Your task to perform on an android device: delete location history Image 0: 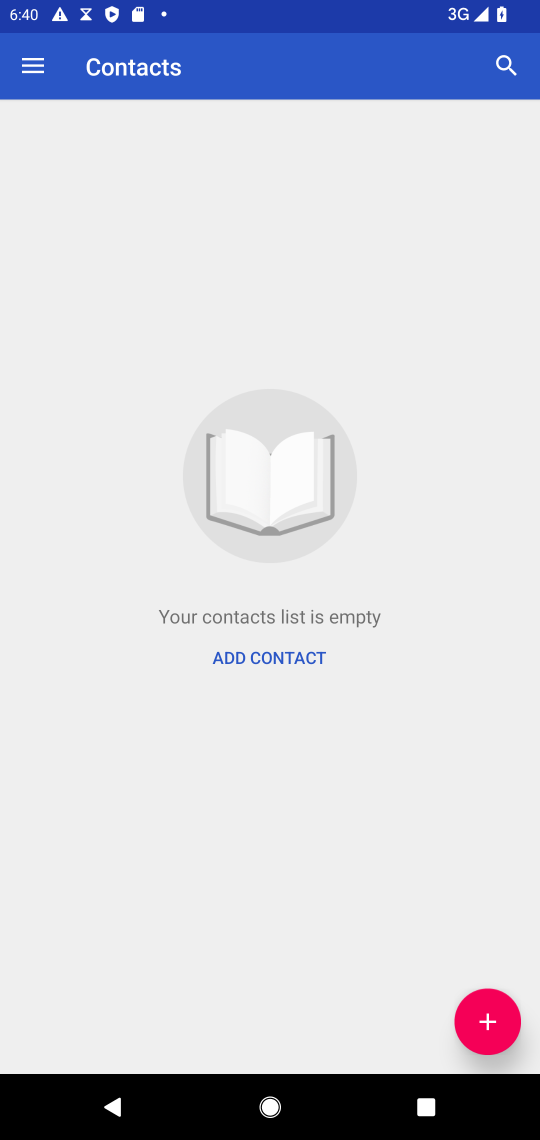
Step 0: press home button
Your task to perform on an android device: delete location history Image 1: 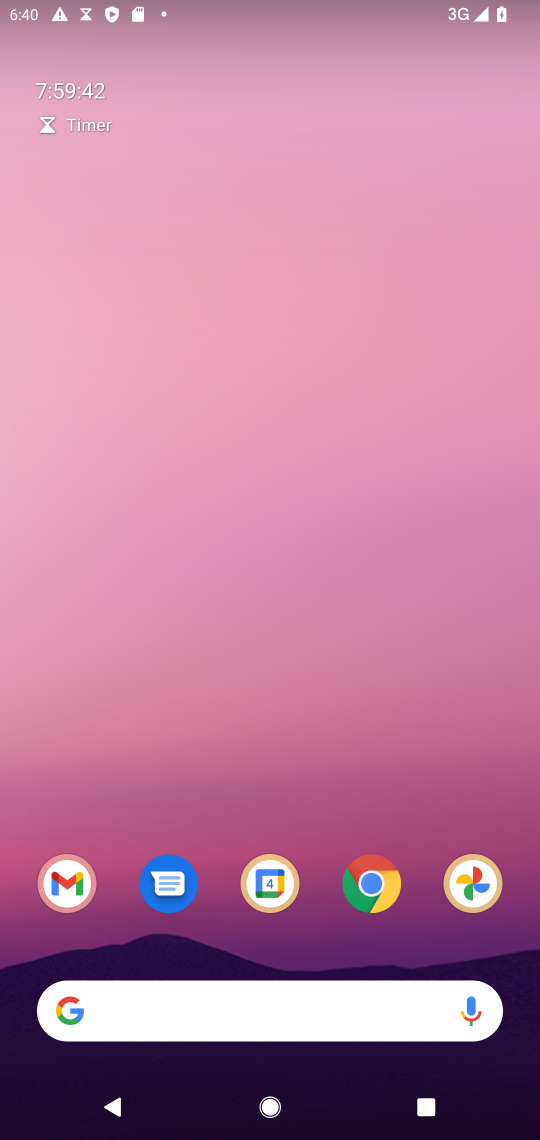
Step 1: drag from (420, 831) to (368, 45)
Your task to perform on an android device: delete location history Image 2: 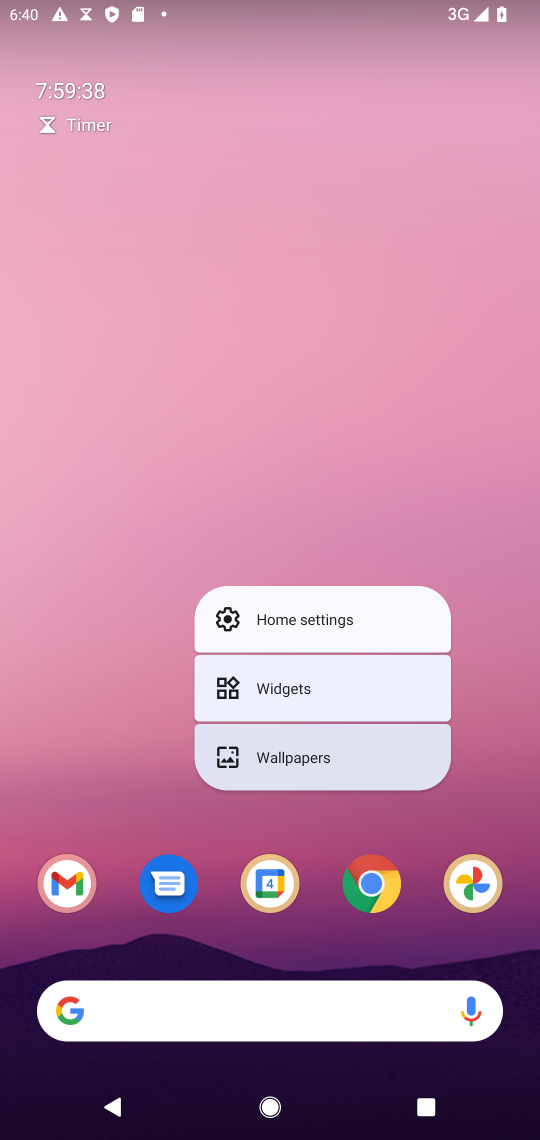
Step 2: drag from (517, 935) to (386, 282)
Your task to perform on an android device: delete location history Image 3: 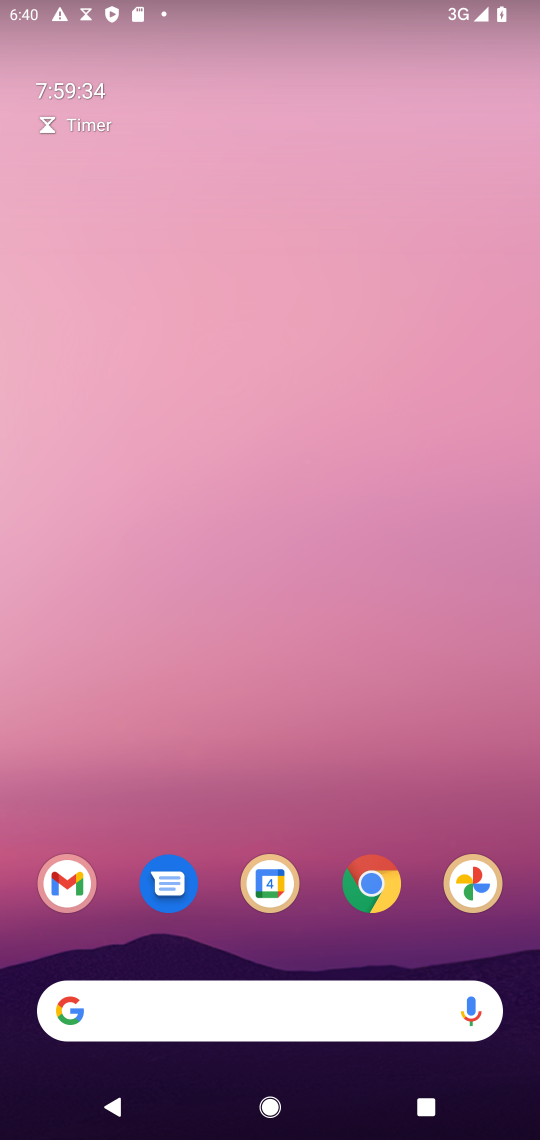
Step 3: drag from (433, 863) to (336, 262)
Your task to perform on an android device: delete location history Image 4: 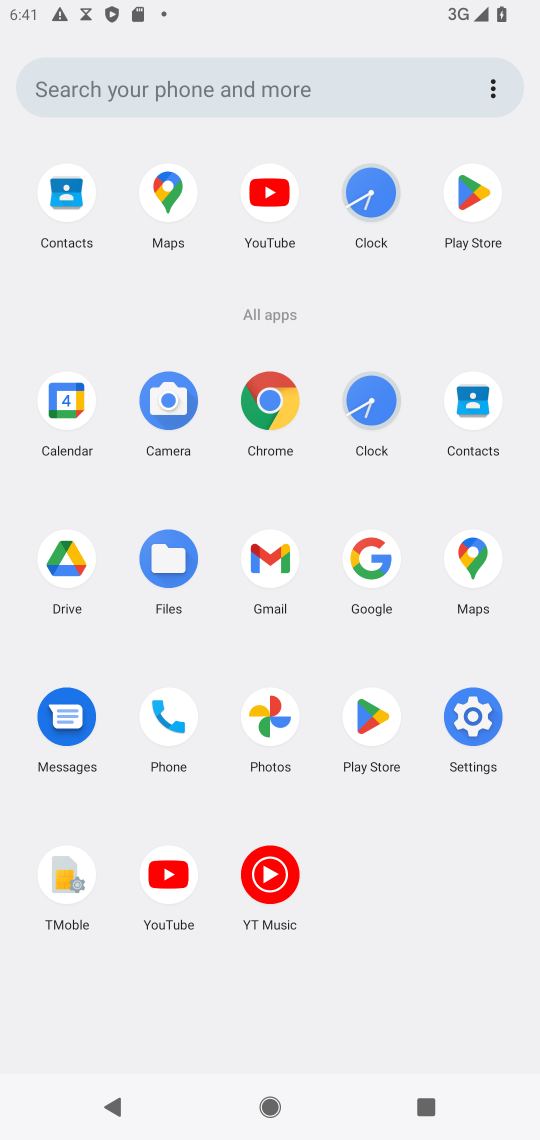
Step 4: click (160, 204)
Your task to perform on an android device: delete location history Image 5: 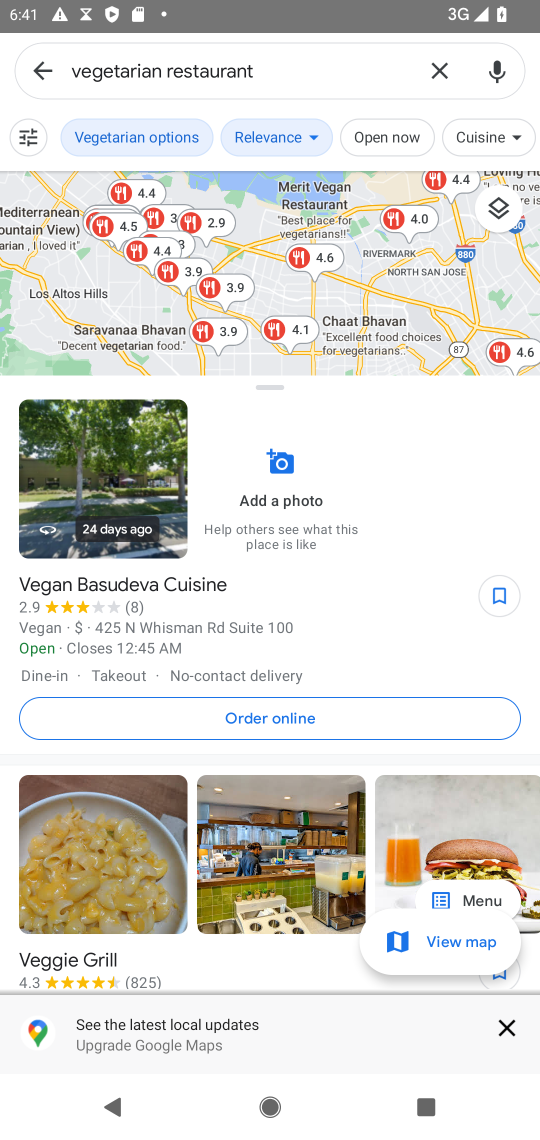
Step 5: click (48, 78)
Your task to perform on an android device: delete location history Image 6: 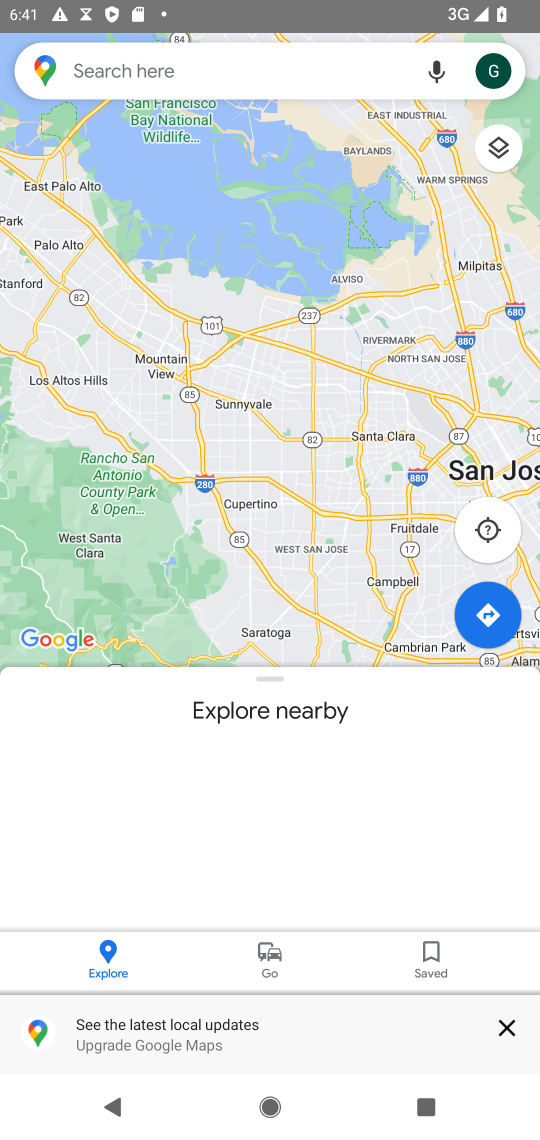
Step 6: click (506, 41)
Your task to perform on an android device: delete location history Image 7: 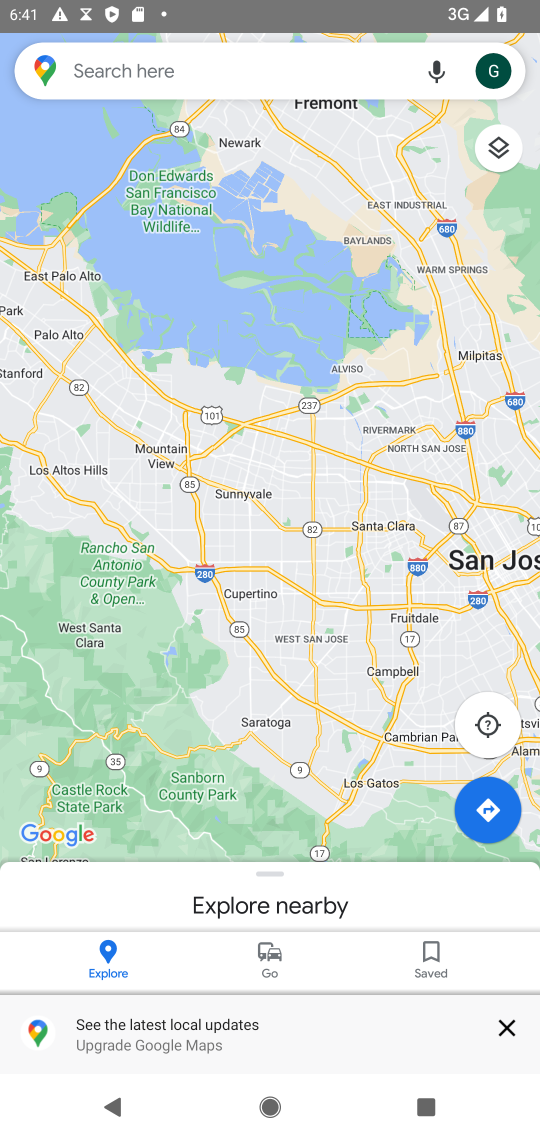
Step 7: click (498, 77)
Your task to perform on an android device: delete location history Image 8: 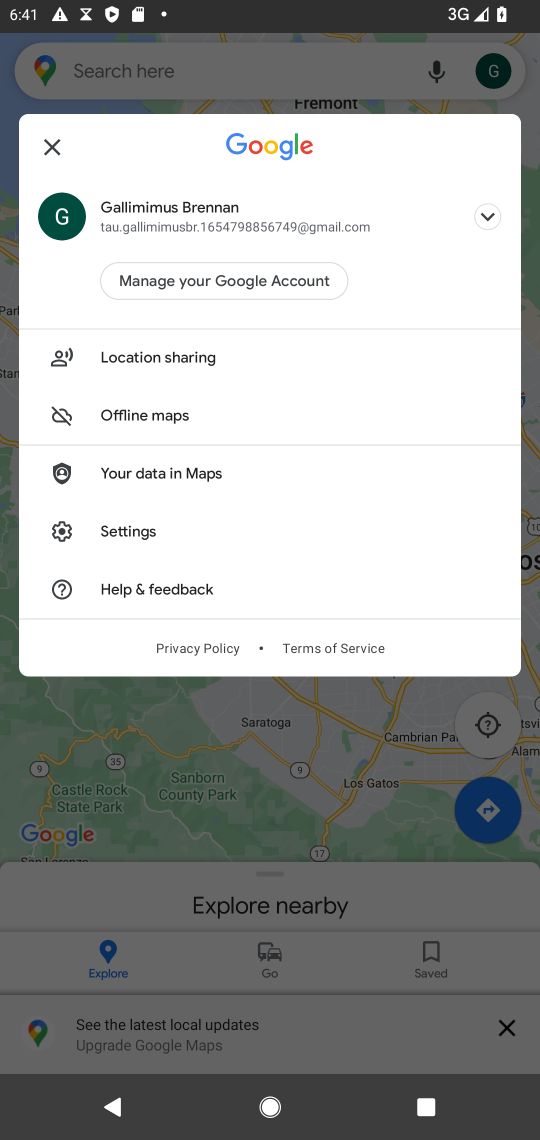
Step 8: click (177, 536)
Your task to perform on an android device: delete location history Image 9: 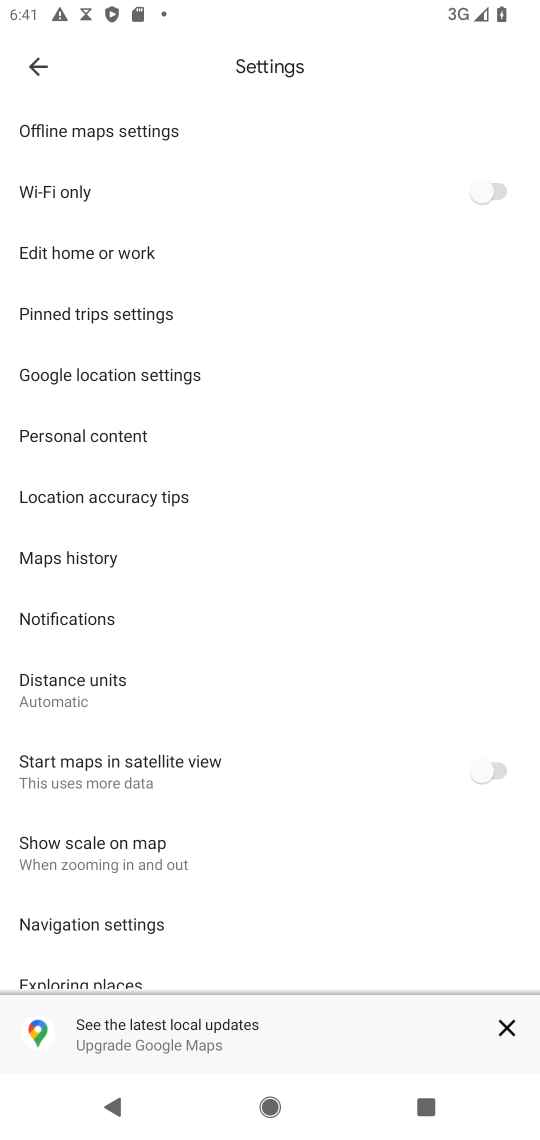
Step 9: task complete